Your task to perform on an android device: Go to display settings Image 0: 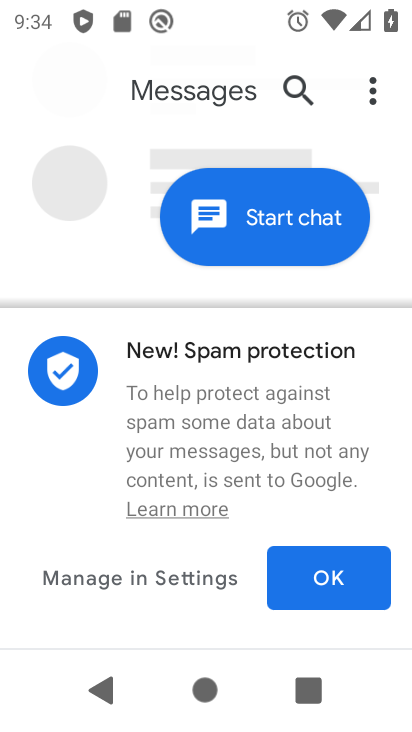
Step 0: press home button
Your task to perform on an android device: Go to display settings Image 1: 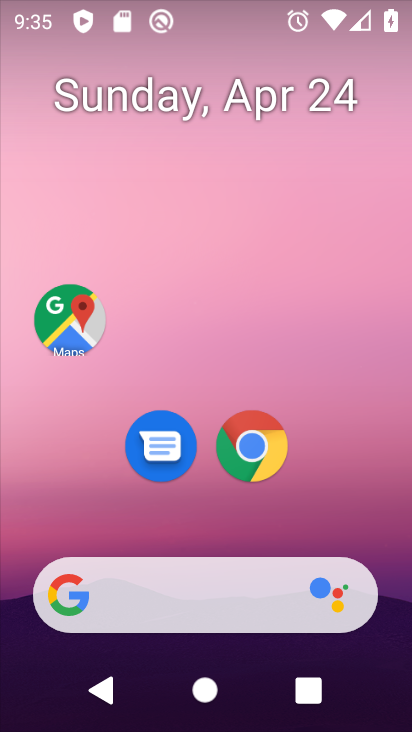
Step 1: drag from (371, 545) to (341, 260)
Your task to perform on an android device: Go to display settings Image 2: 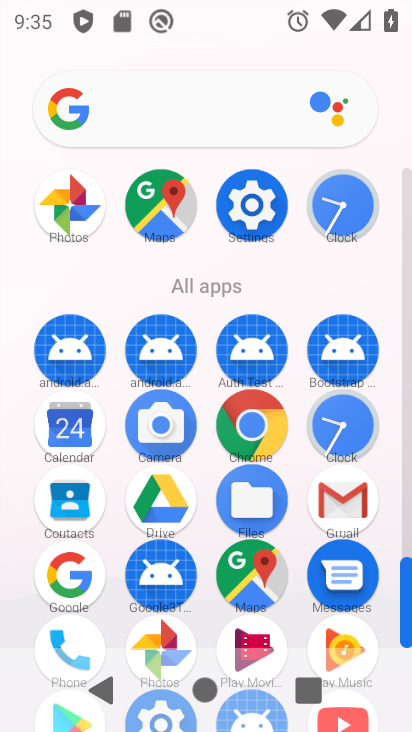
Step 2: click (270, 203)
Your task to perform on an android device: Go to display settings Image 3: 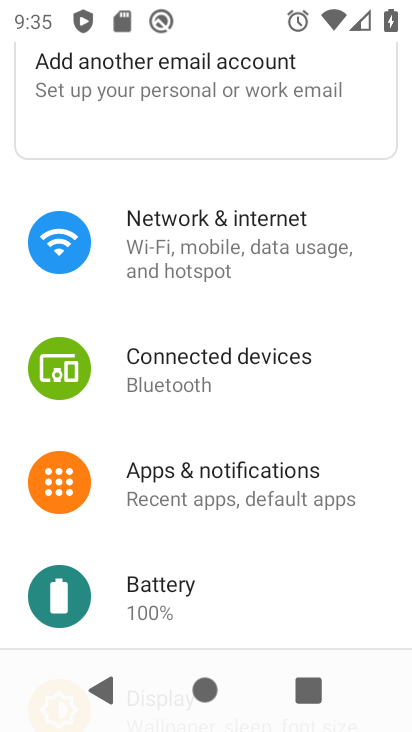
Step 3: drag from (249, 541) to (310, 194)
Your task to perform on an android device: Go to display settings Image 4: 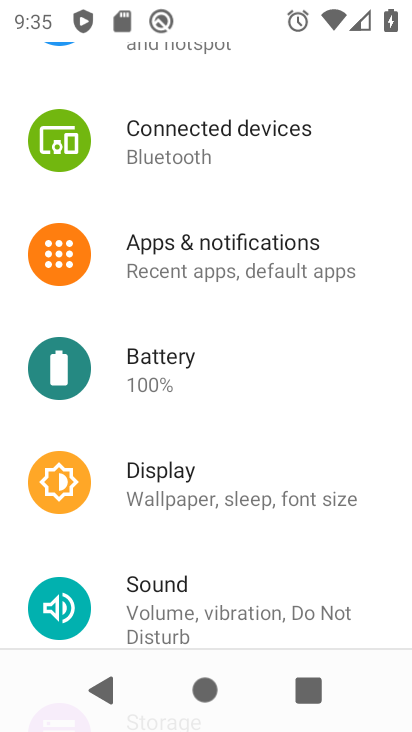
Step 4: click (282, 493)
Your task to perform on an android device: Go to display settings Image 5: 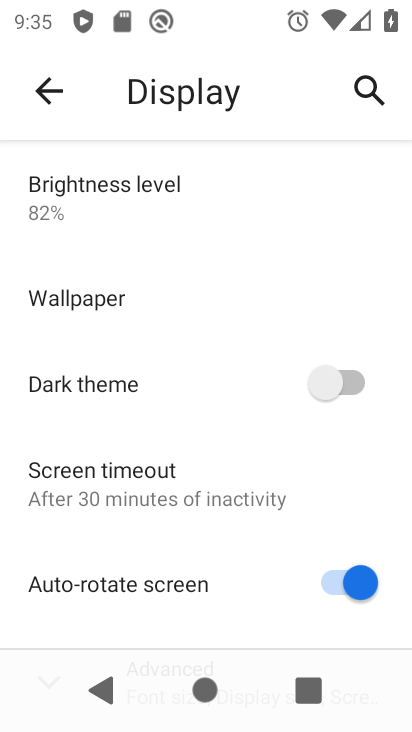
Step 5: task complete